Your task to perform on an android device: toggle sleep mode Image 0: 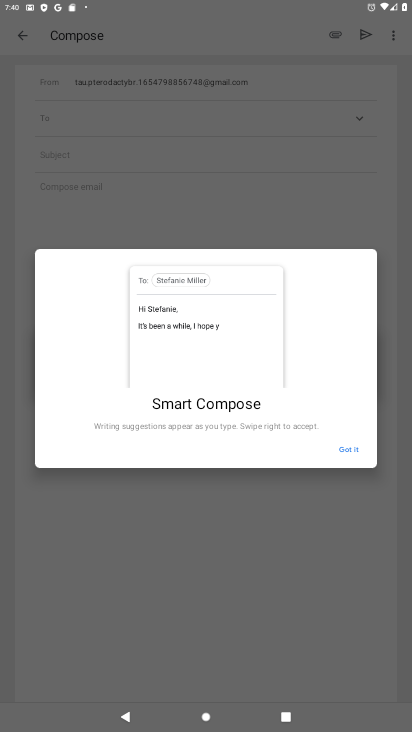
Step 0: press home button
Your task to perform on an android device: toggle sleep mode Image 1: 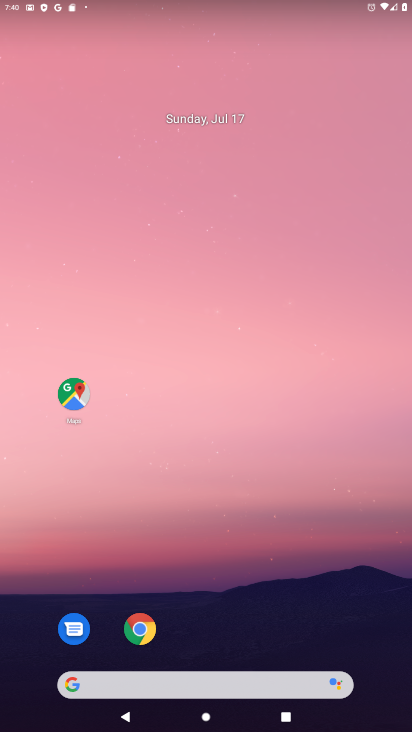
Step 1: drag from (202, 663) to (177, 1)
Your task to perform on an android device: toggle sleep mode Image 2: 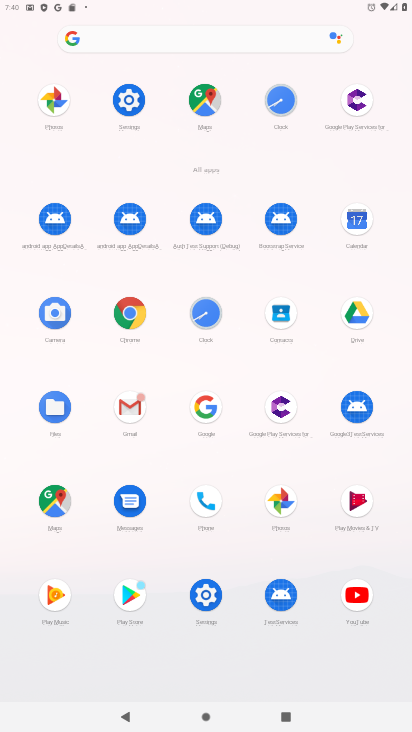
Step 2: click (214, 605)
Your task to perform on an android device: toggle sleep mode Image 3: 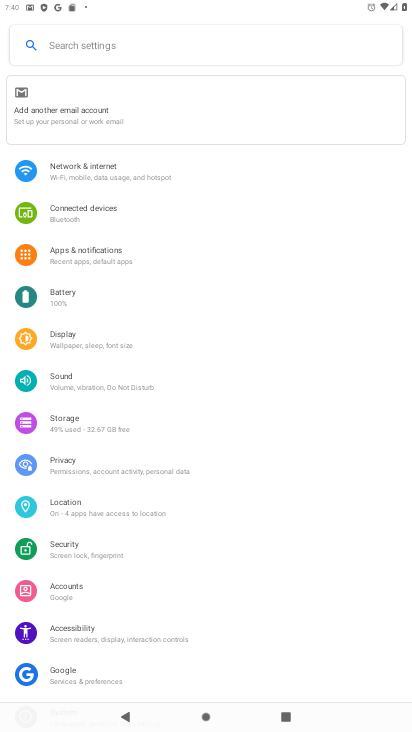
Step 3: click (73, 331)
Your task to perform on an android device: toggle sleep mode Image 4: 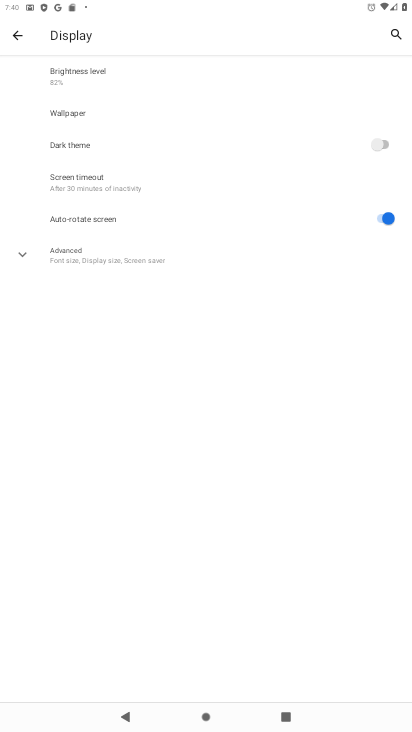
Step 4: click (62, 252)
Your task to perform on an android device: toggle sleep mode Image 5: 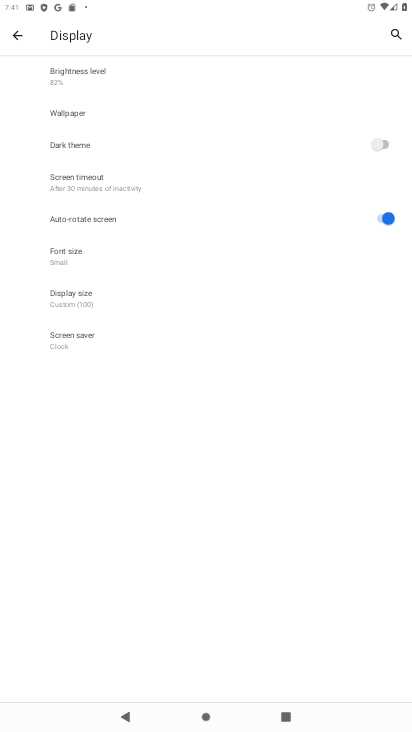
Step 5: task complete